Your task to perform on an android device: set the stopwatch Image 0: 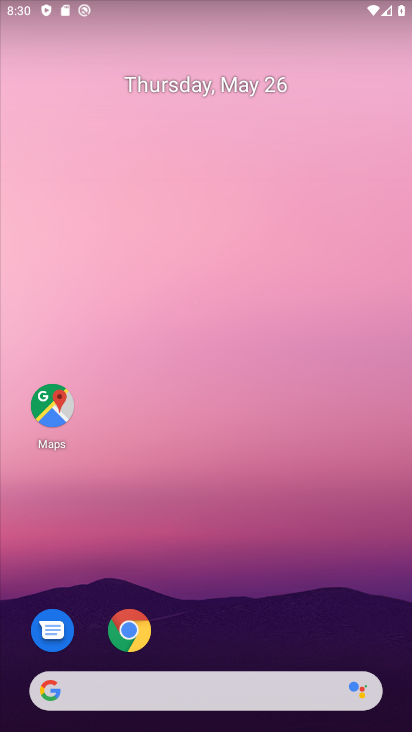
Step 0: drag from (235, 608) to (233, 105)
Your task to perform on an android device: set the stopwatch Image 1: 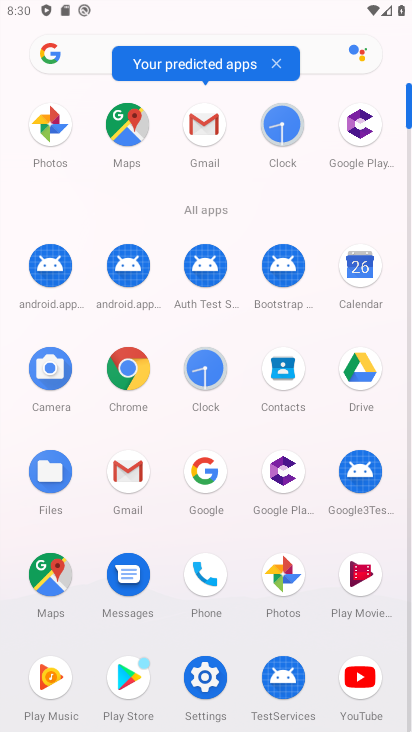
Step 1: click (283, 125)
Your task to perform on an android device: set the stopwatch Image 2: 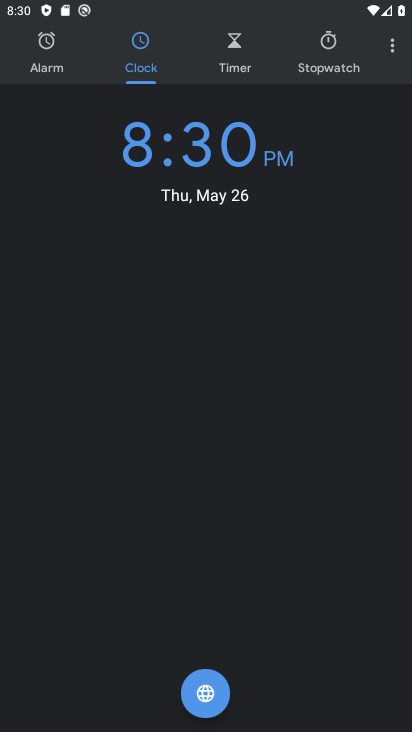
Step 2: click (329, 52)
Your task to perform on an android device: set the stopwatch Image 3: 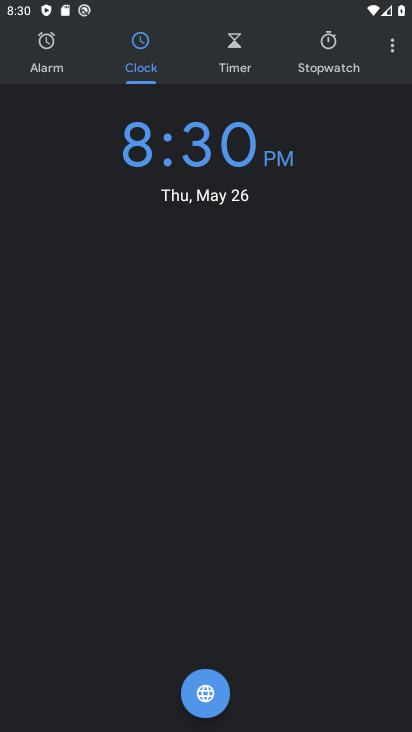
Step 3: click (331, 43)
Your task to perform on an android device: set the stopwatch Image 4: 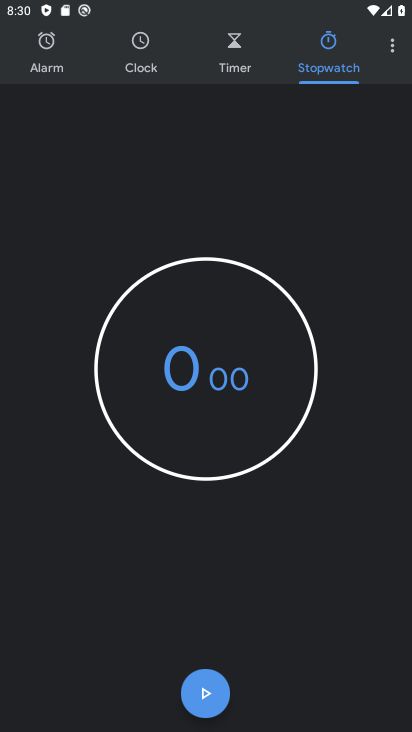
Step 4: click (205, 684)
Your task to perform on an android device: set the stopwatch Image 5: 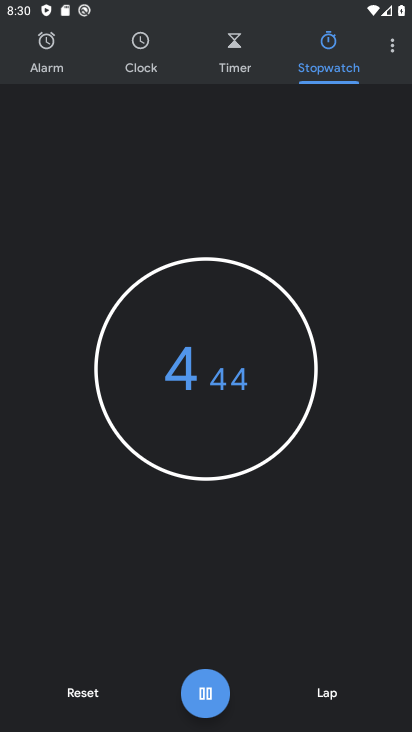
Step 5: task complete